Your task to perform on an android device: Open location settings Image 0: 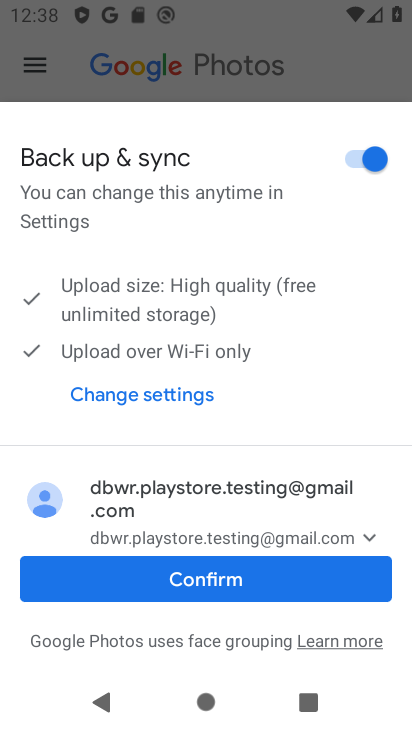
Step 0: press home button
Your task to perform on an android device: Open location settings Image 1: 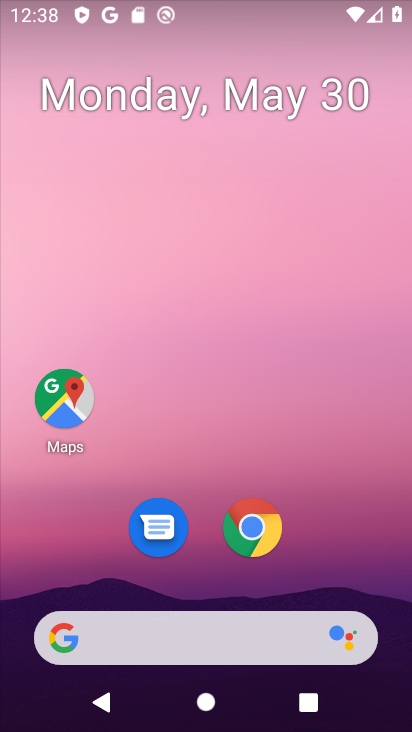
Step 1: drag from (384, 585) to (269, 154)
Your task to perform on an android device: Open location settings Image 2: 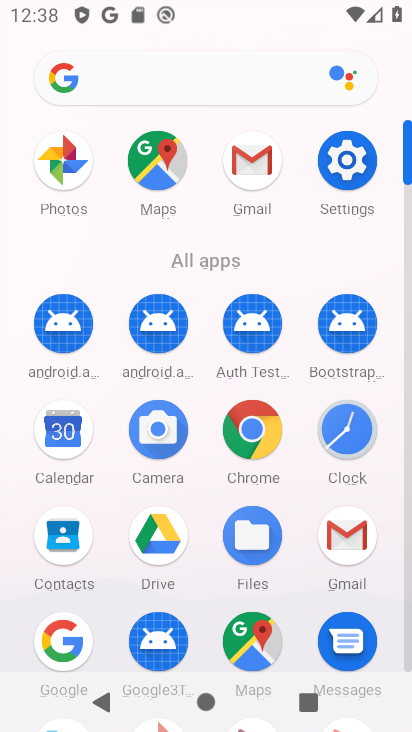
Step 2: click (361, 172)
Your task to perform on an android device: Open location settings Image 3: 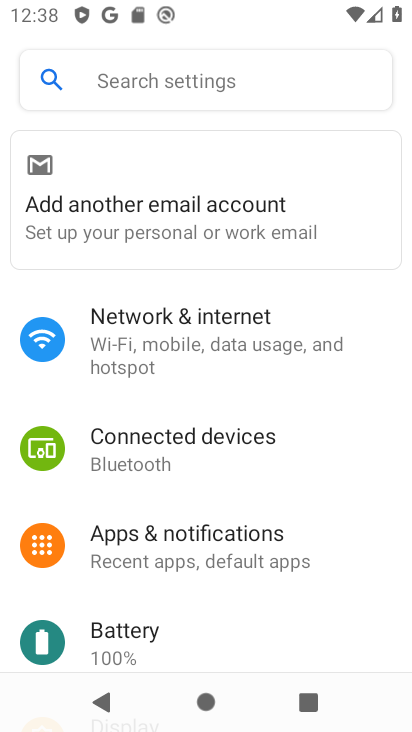
Step 3: drag from (262, 611) to (223, 132)
Your task to perform on an android device: Open location settings Image 4: 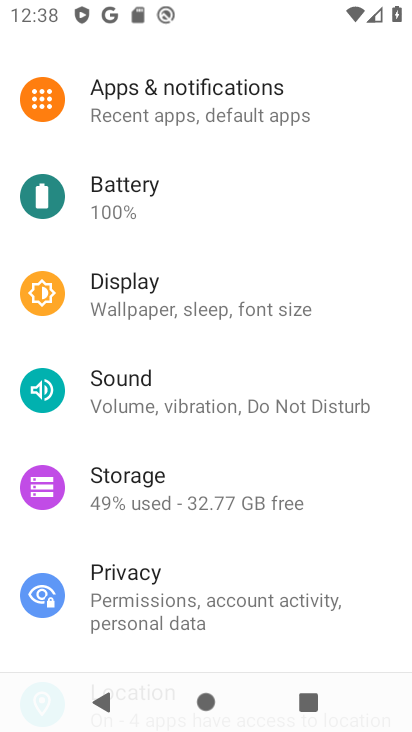
Step 4: drag from (241, 568) to (222, 110)
Your task to perform on an android device: Open location settings Image 5: 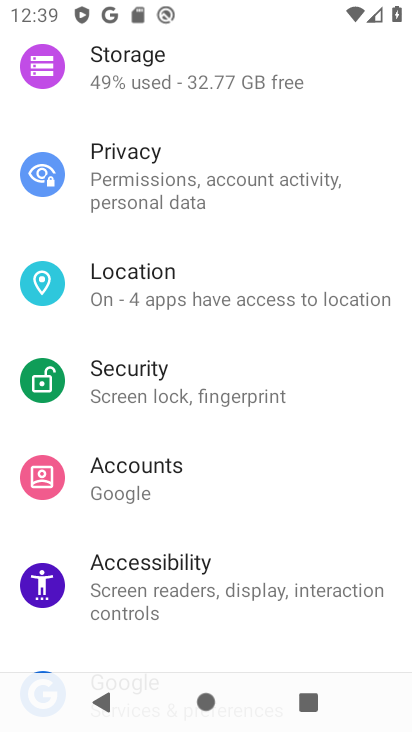
Step 5: click (246, 291)
Your task to perform on an android device: Open location settings Image 6: 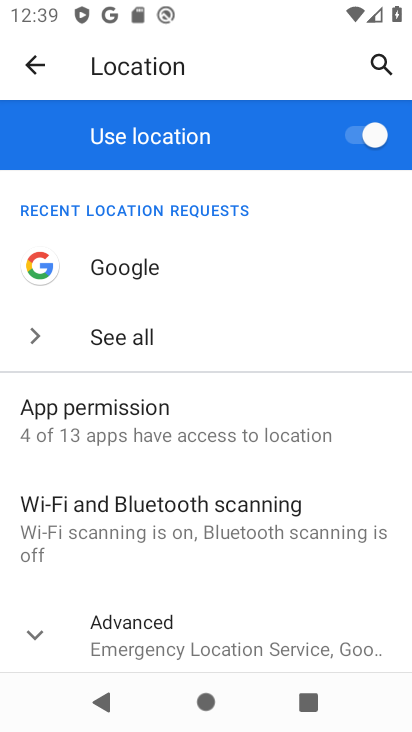
Step 6: task complete